Your task to perform on an android device: see creations saved in the google photos Image 0: 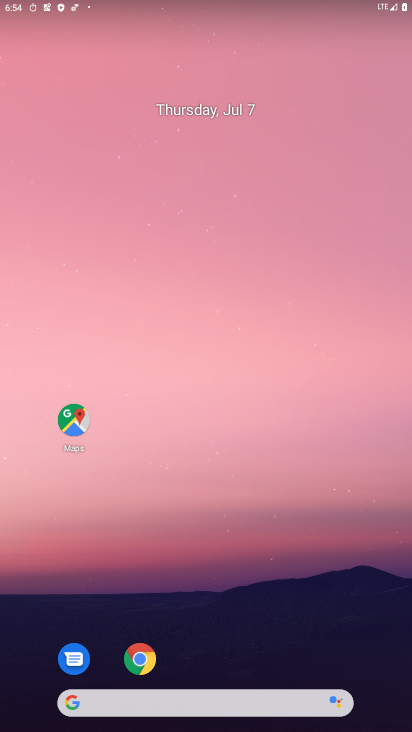
Step 0: drag from (386, 692) to (209, 14)
Your task to perform on an android device: see creations saved in the google photos Image 1: 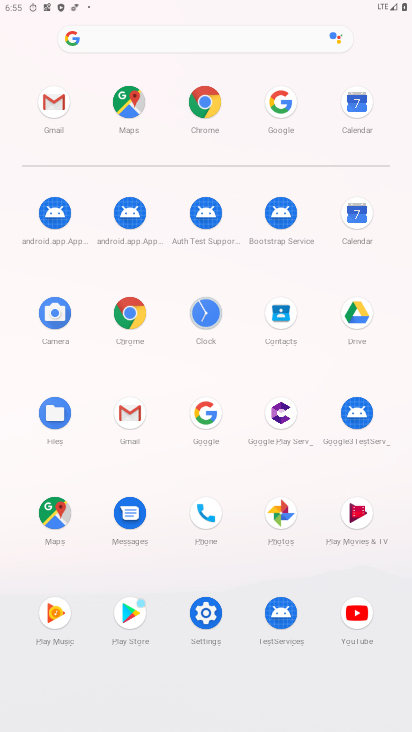
Step 1: click (266, 521)
Your task to perform on an android device: see creations saved in the google photos Image 2: 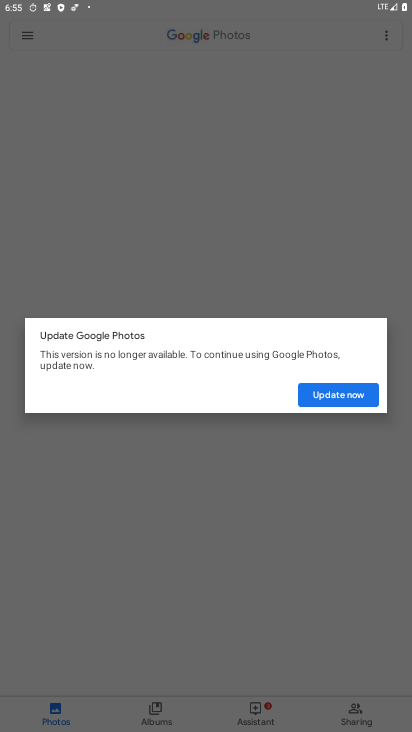
Step 2: click (336, 393)
Your task to perform on an android device: see creations saved in the google photos Image 3: 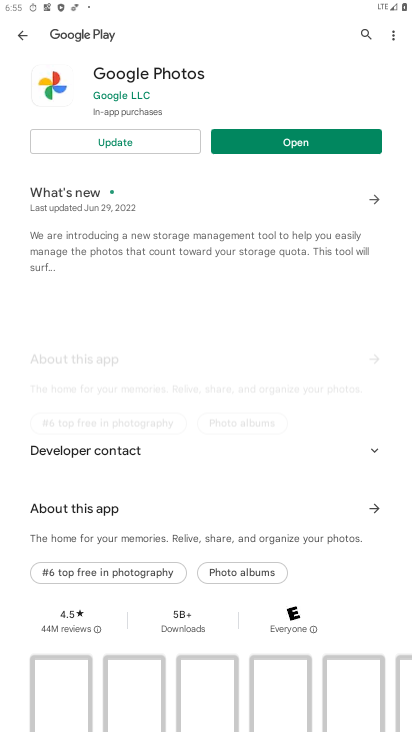
Step 3: click (124, 143)
Your task to perform on an android device: see creations saved in the google photos Image 4: 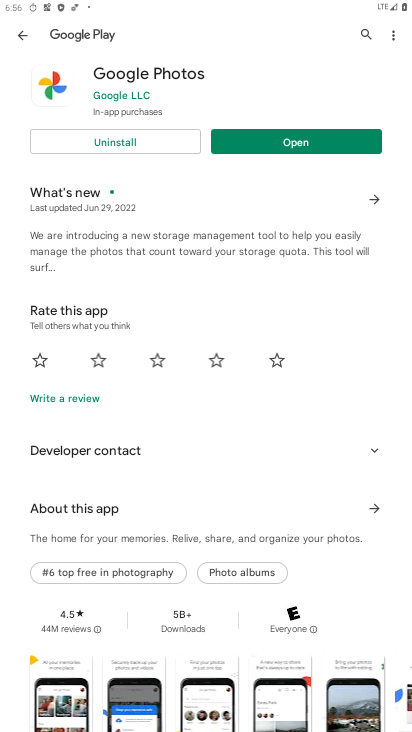
Step 4: click (278, 145)
Your task to perform on an android device: see creations saved in the google photos Image 5: 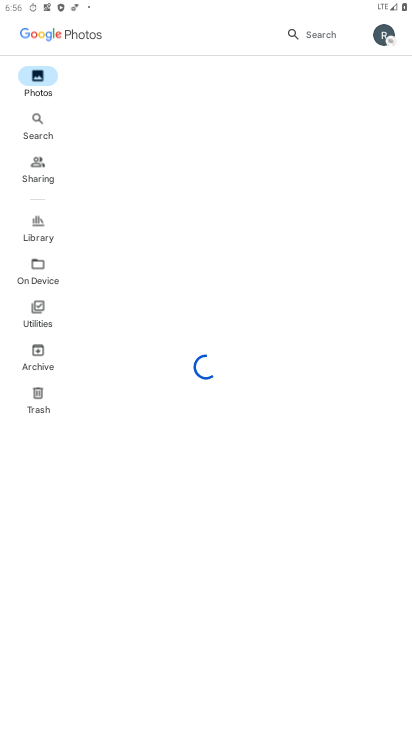
Step 5: click (379, 25)
Your task to perform on an android device: see creations saved in the google photos Image 6: 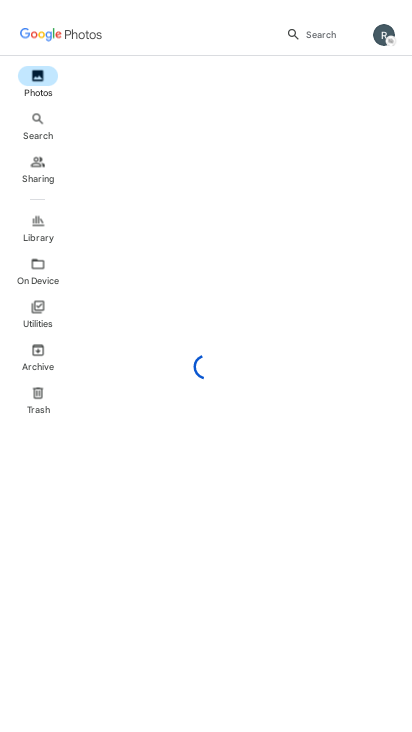
Step 6: click (379, 32)
Your task to perform on an android device: see creations saved in the google photos Image 7: 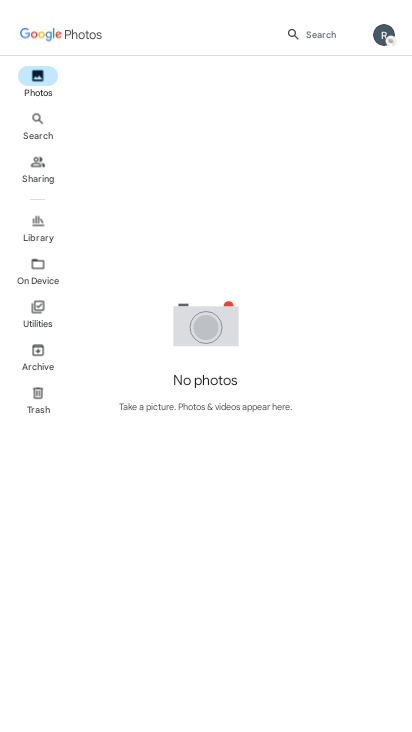
Step 7: click (382, 39)
Your task to perform on an android device: see creations saved in the google photos Image 8: 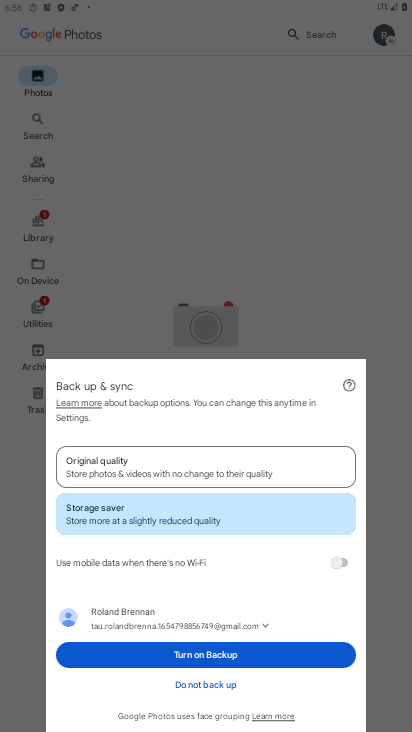
Step 8: click (158, 664)
Your task to perform on an android device: see creations saved in the google photos Image 9: 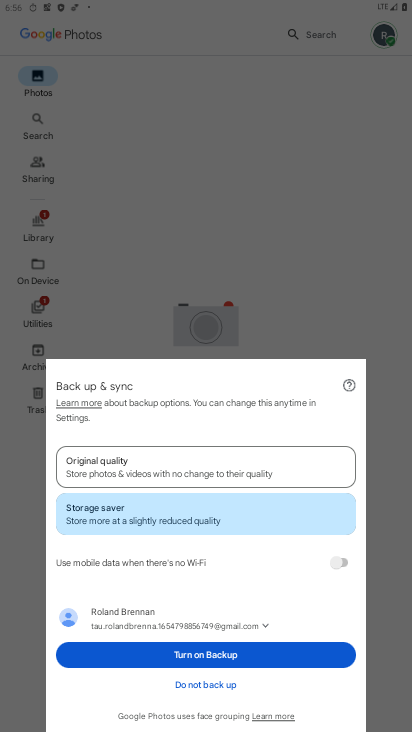
Step 9: click (158, 664)
Your task to perform on an android device: see creations saved in the google photos Image 10: 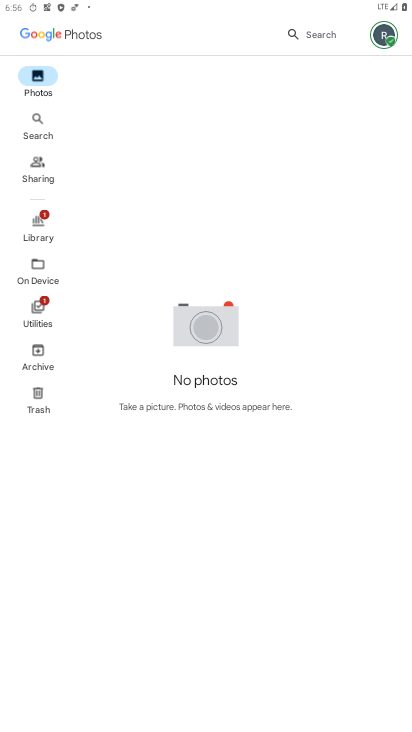
Step 10: click (382, 34)
Your task to perform on an android device: see creations saved in the google photos Image 11: 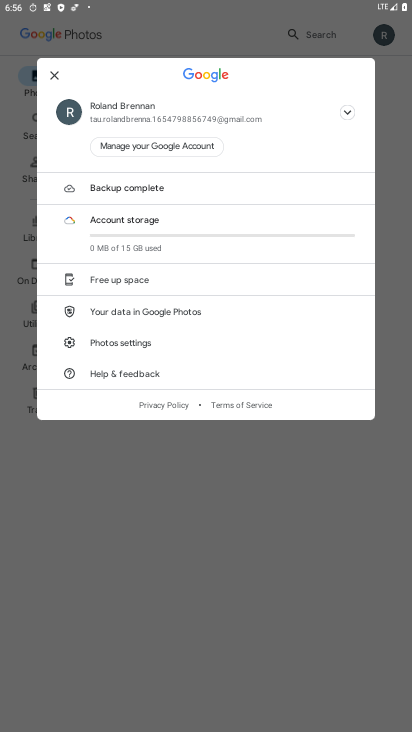
Step 11: click (80, 607)
Your task to perform on an android device: see creations saved in the google photos Image 12: 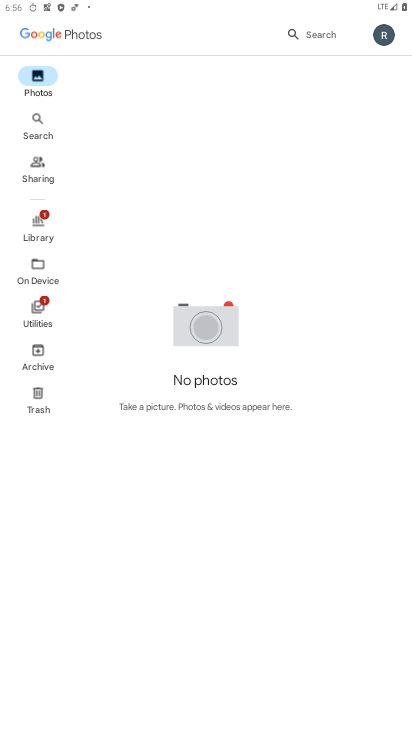
Step 12: click (293, 32)
Your task to perform on an android device: see creations saved in the google photos Image 13: 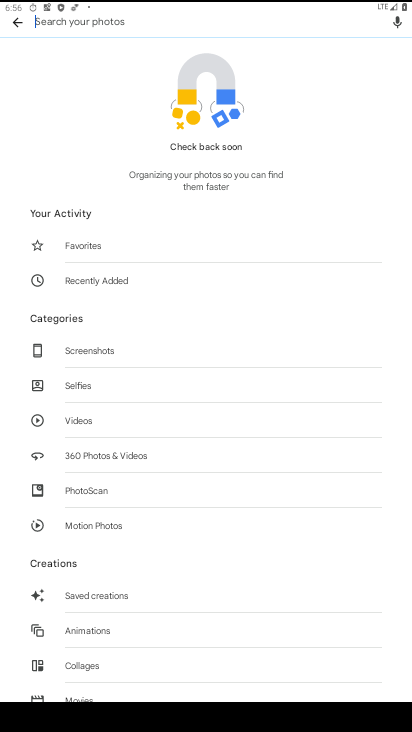
Step 13: click (99, 594)
Your task to perform on an android device: see creations saved in the google photos Image 14: 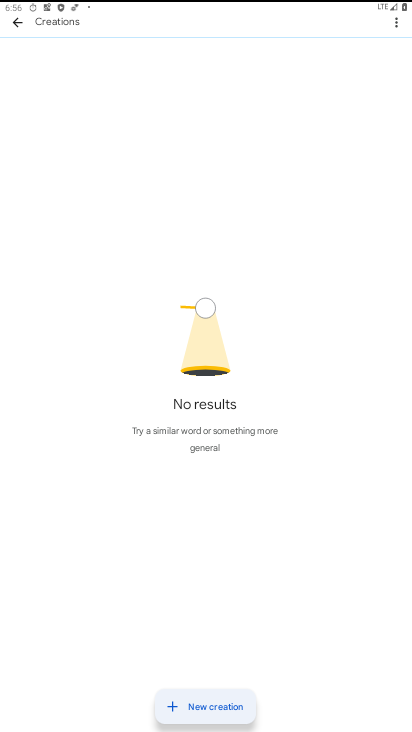
Step 14: task complete